Your task to perform on an android device: What is the news today? Image 0: 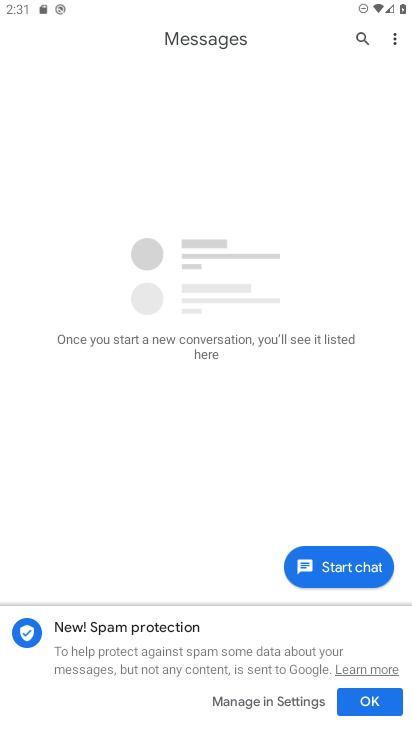
Step 0: press home button
Your task to perform on an android device: What is the news today? Image 1: 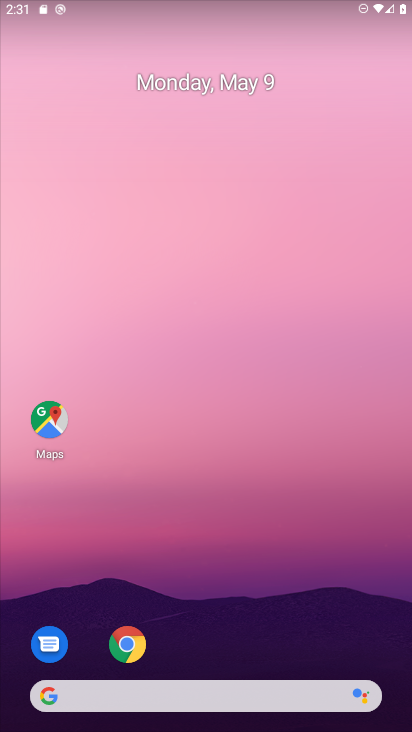
Step 1: drag from (251, 617) to (236, 135)
Your task to perform on an android device: What is the news today? Image 2: 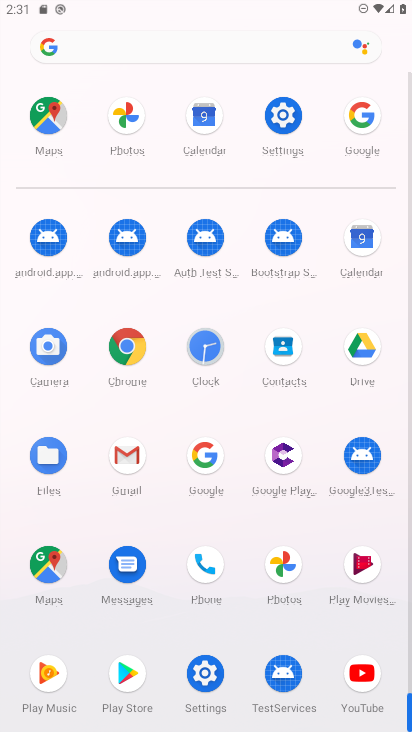
Step 2: click (375, 126)
Your task to perform on an android device: What is the news today? Image 3: 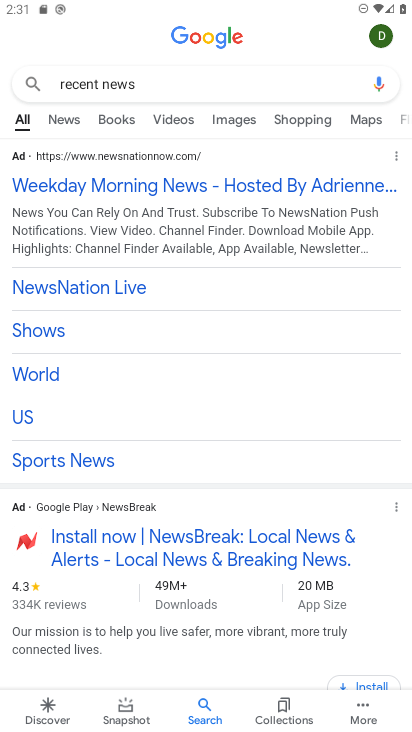
Step 3: task complete